Your task to perform on an android device: Turn on the flashlight Image 0: 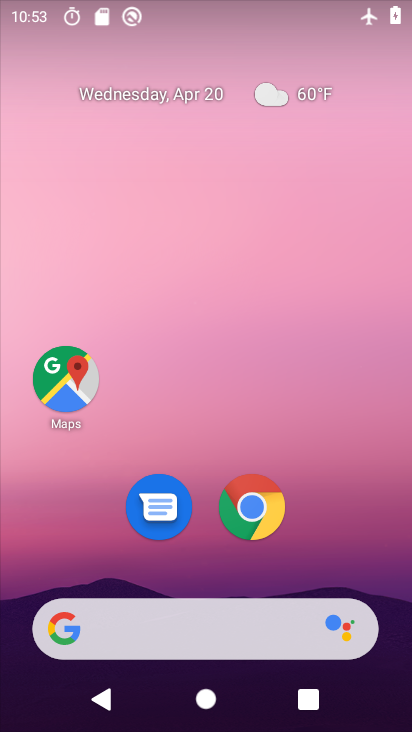
Step 0: drag from (237, 583) to (258, 76)
Your task to perform on an android device: Turn on the flashlight Image 1: 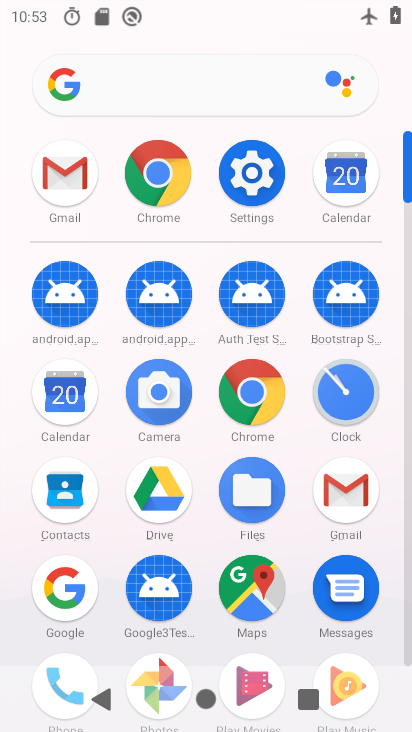
Step 1: click (255, 175)
Your task to perform on an android device: Turn on the flashlight Image 2: 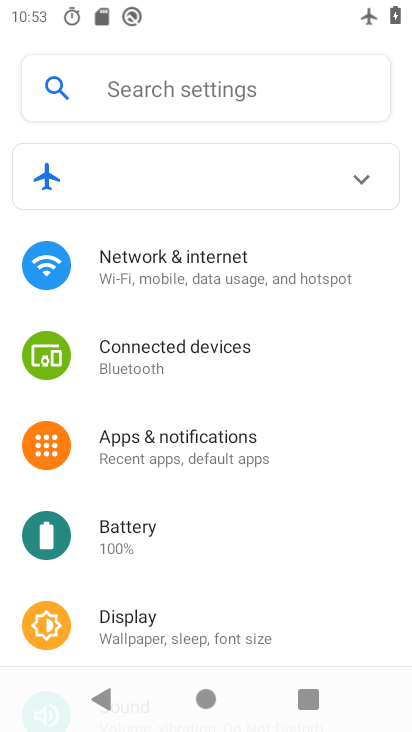
Step 2: drag from (204, 510) to (218, 245)
Your task to perform on an android device: Turn on the flashlight Image 3: 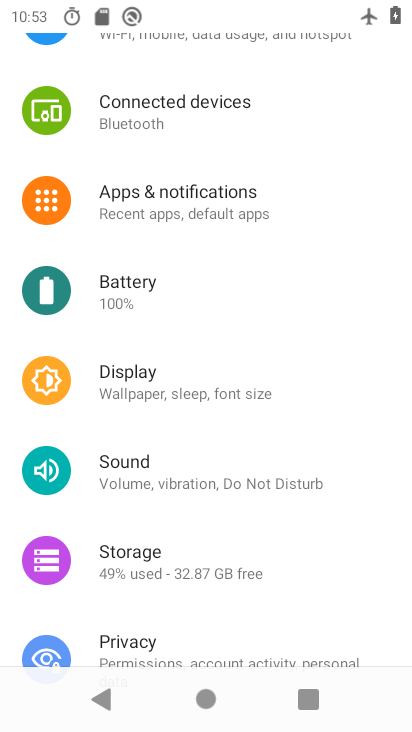
Step 3: click (161, 392)
Your task to perform on an android device: Turn on the flashlight Image 4: 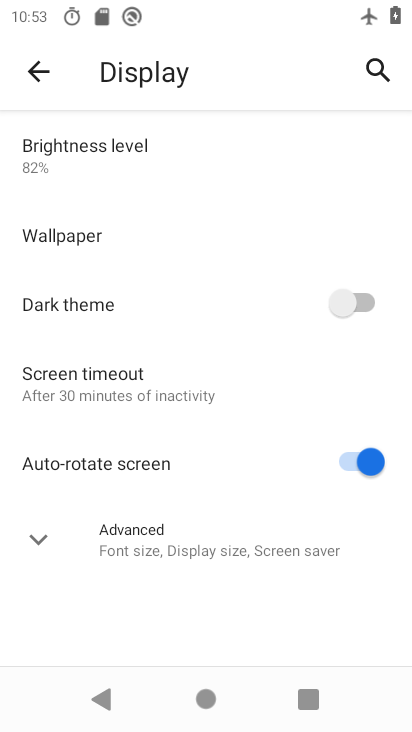
Step 4: task complete